Your task to perform on an android device: open device folders in google photos Image 0: 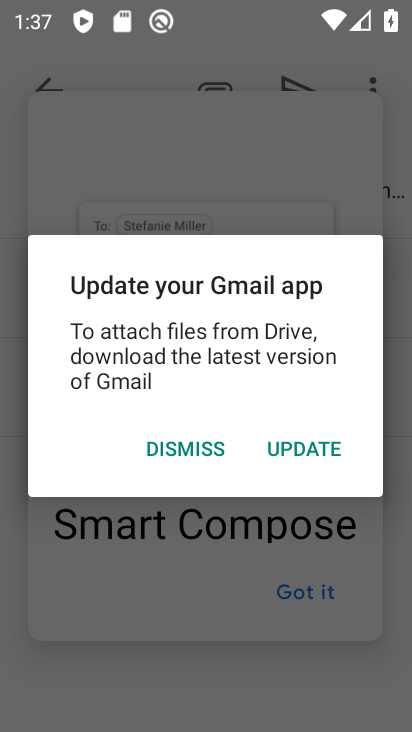
Step 0: press home button
Your task to perform on an android device: open device folders in google photos Image 1: 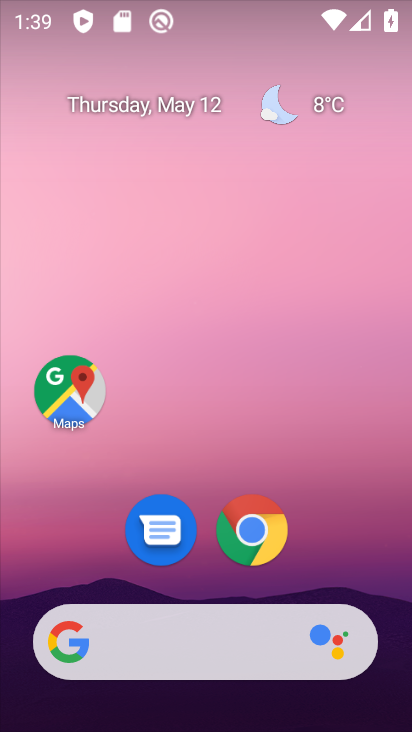
Step 1: drag from (29, 620) to (282, 114)
Your task to perform on an android device: open device folders in google photos Image 2: 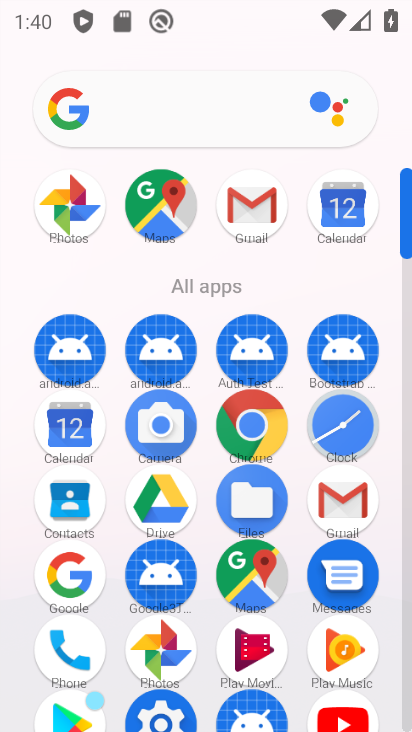
Step 2: click (151, 646)
Your task to perform on an android device: open device folders in google photos Image 3: 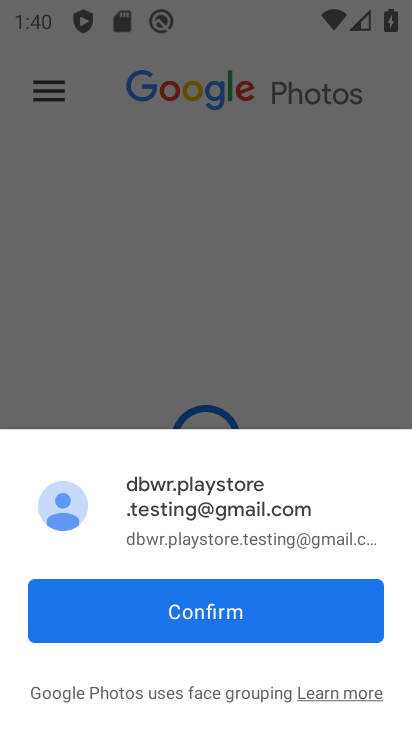
Step 3: click (141, 597)
Your task to perform on an android device: open device folders in google photos Image 4: 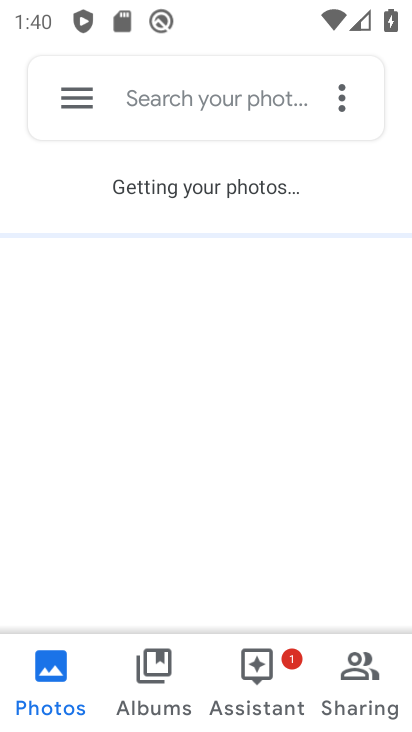
Step 4: click (77, 90)
Your task to perform on an android device: open device folders in google photos Image 5: 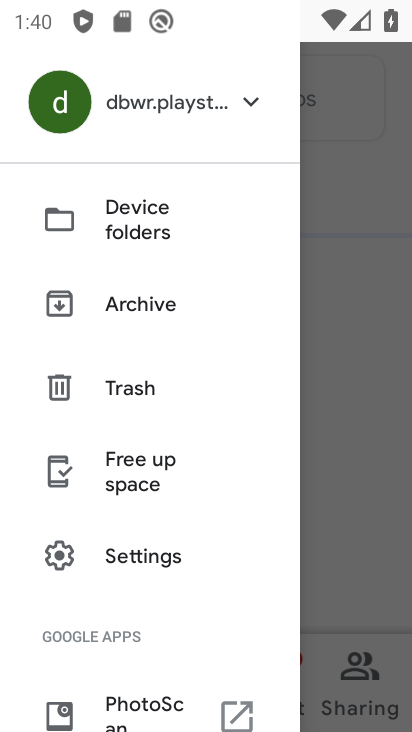
Step 5: click (97, 227)
Your task to perform on an android device: open device folders in google photos Image 6: 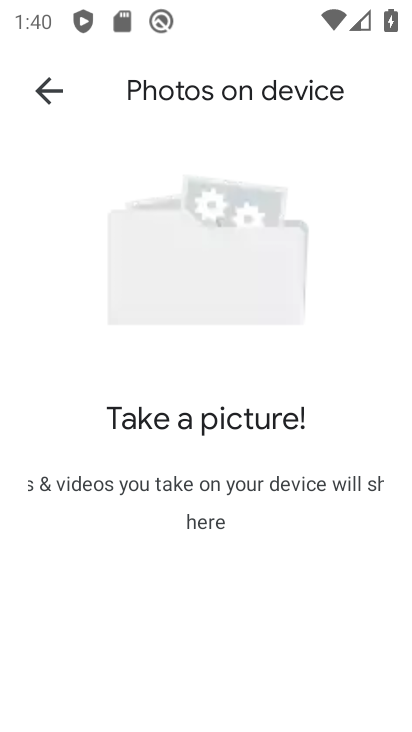
Step 6: task complete